Your task to perform on an android device: Open Google Image 0: 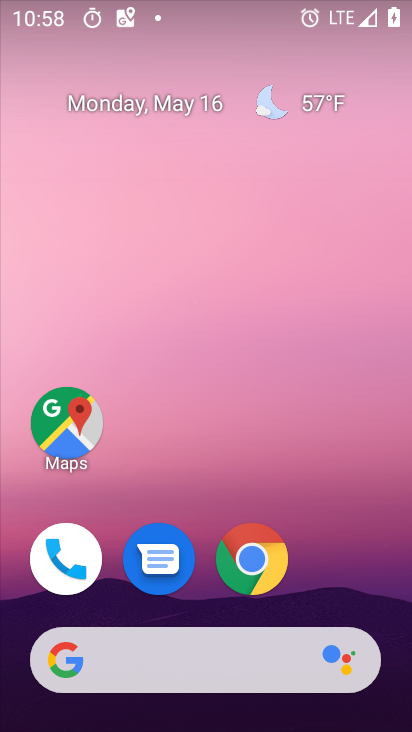
Step 0: drag from (336, 551) to (363, 100)
Your task to perform on an android device: Open Google Image 1: 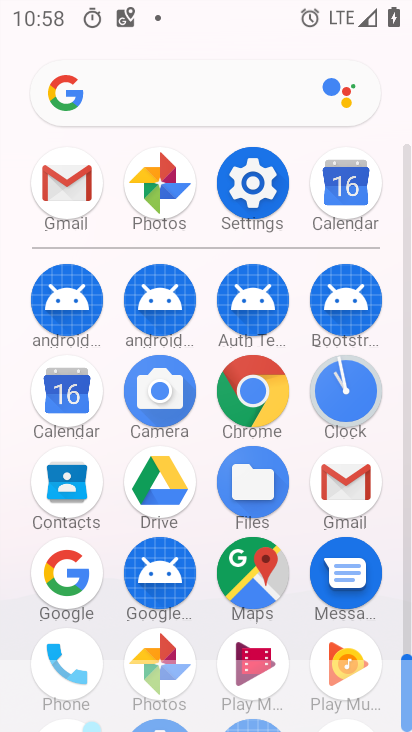
Step 1: click (51, 564)
Your task to perform on an android device: Open Google Image 2: 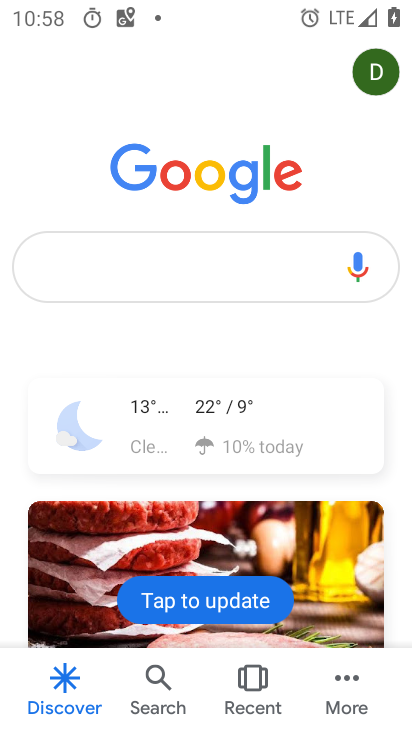
Step 2: task complete